Your task to perform on an android device: Do I have any events this weekend? Image 0: 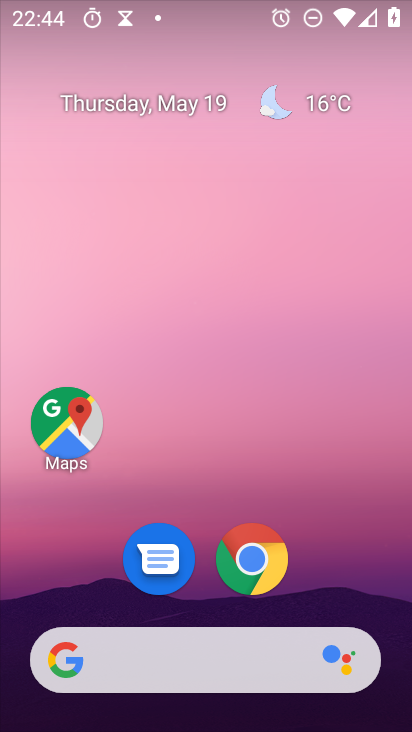
Step 0: drag from (207, 725) to (202, 126)
Your task to perform on an android device: Do I have any events this weekend? Image 1: 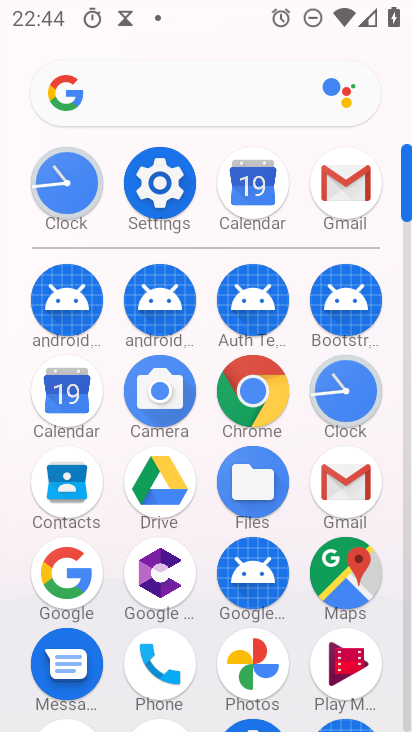
Step 1: click (68, 410)
Your task to perform on an android device: Do I have any events this weekend? Image 2: 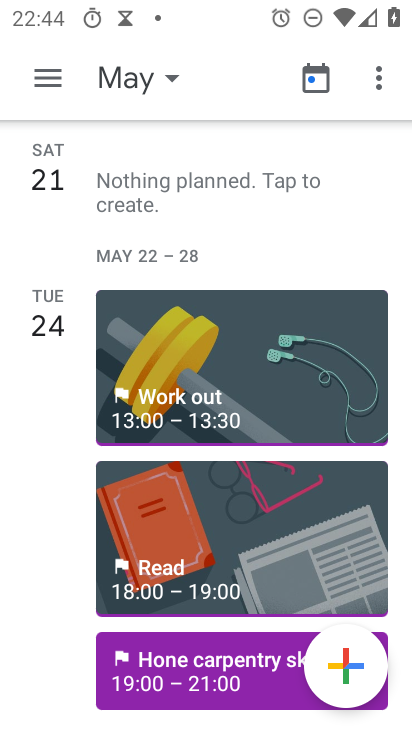
Step 2: click (41, 81)
Your task to perform on an android device: Do I have any events this weekend? Image 3: 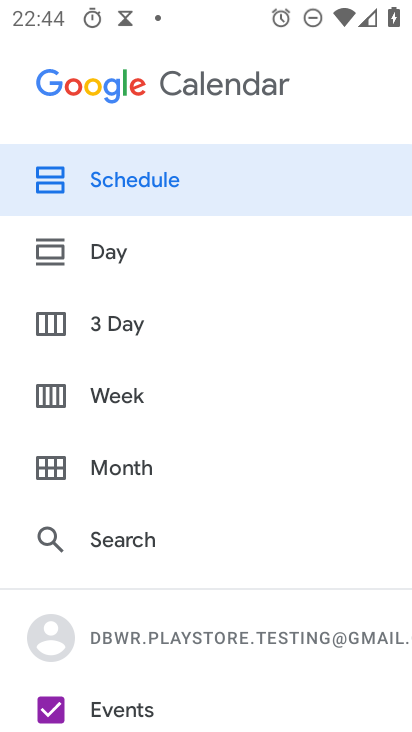
Step 3: drag from (98, 672) to (125, 593)
Your task to perform on an android device: Do I have any events this weekend? Image 4: 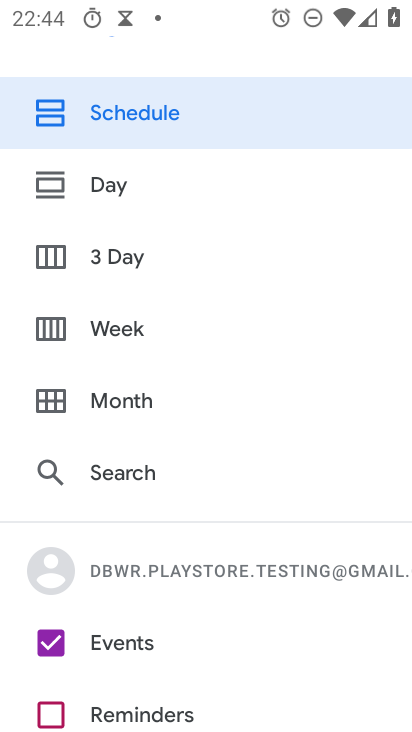
Step 4: click (125, 320)
Your task to perform on an android device: Do I have any events this weekend? Image 5: 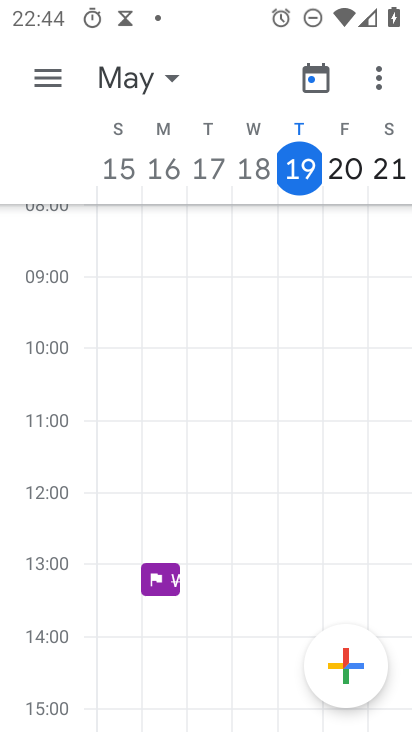
Step 5: click (385, 163)
Your task to perform on an android device: Do I have any events this weekend? Image 6: 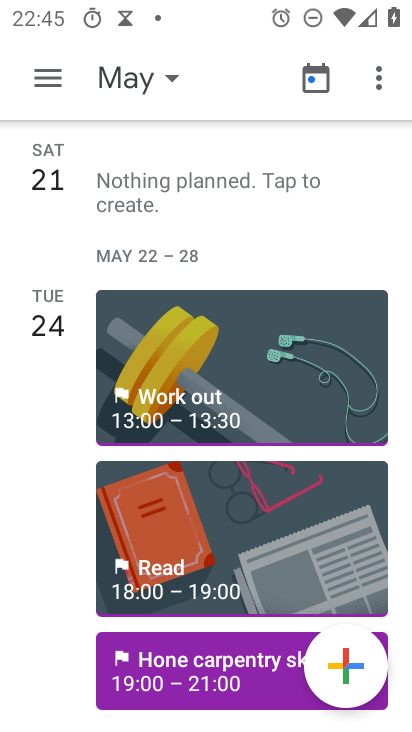
Step 6: task complete